Your task to perform on an android device: Open the Play Movies app and select the watchlist tab. Image 0: 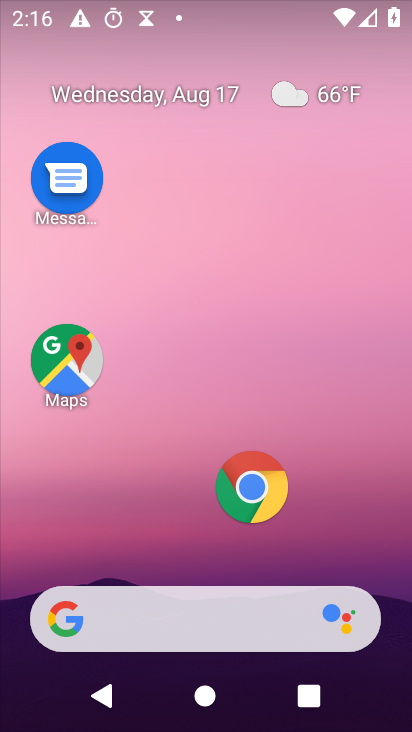
Step 0: drag from (203, 556) to (163, 0)
Your task to perform on an android device: Open the Play Movies app and select the watchlist tab. Image 1: 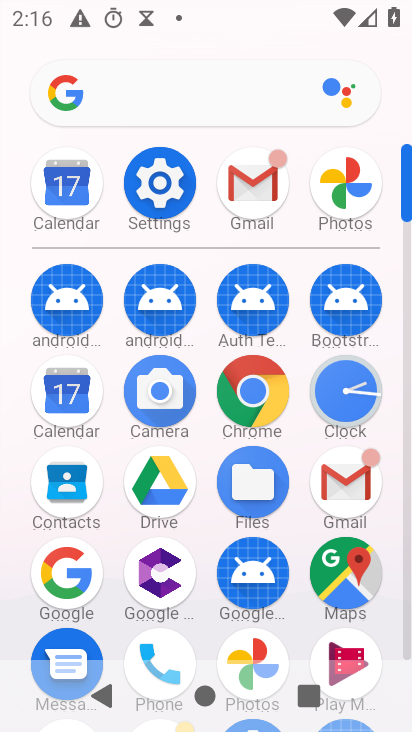
Step 1: drag from (309, 562) to (281, 166)
Your task to perform on an android device: Open the Play Movies app and select the watchlist tab. Image 2: 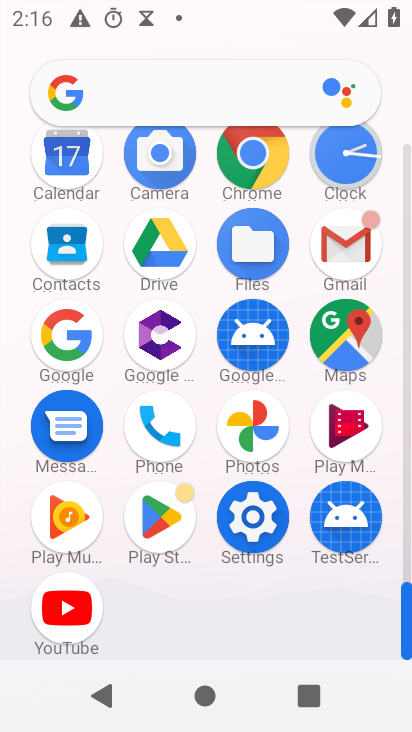
Step 2: click (341, 434)
Your task to perform on an android device: Open the Play Movies app and select the watchlist tab. Image 3: 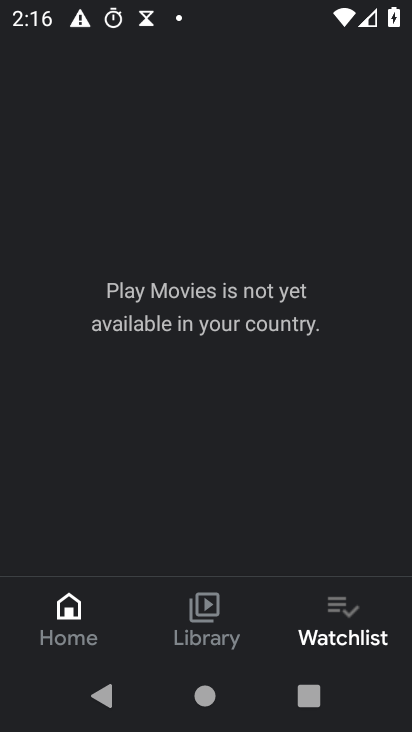
Step 3: click (330, 627)
Your task to perform on an android device: Open the Play Movies app and select the watchlist tab. Image 4: 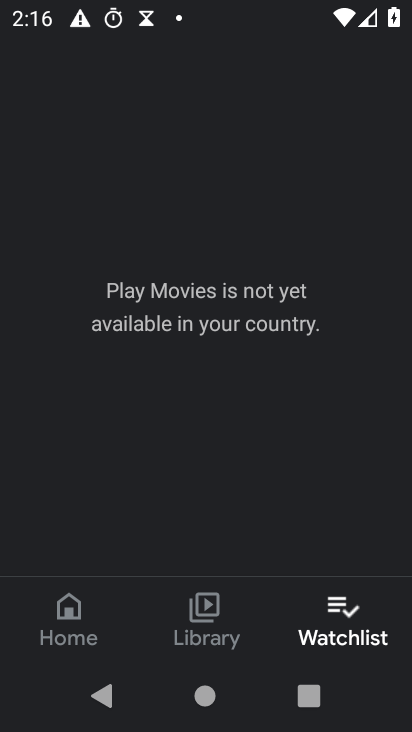
Step 4: task complete